Your task to perform on an android device: Show me recent news Image 0: 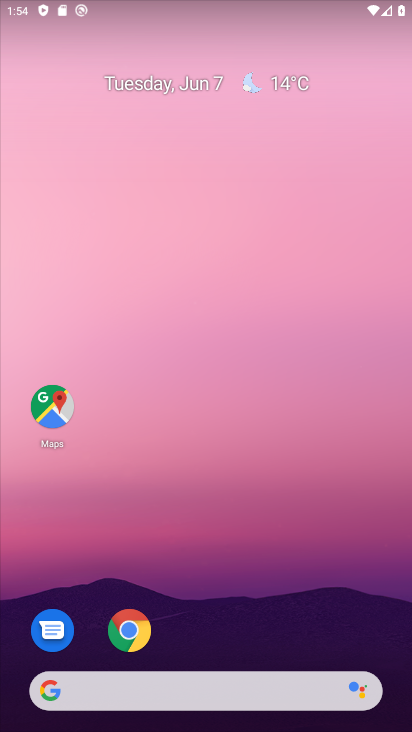
Step 0: drag from (2, 291) to (383, 284)
Your task to perform on an android device: Show me recent news Image 1: 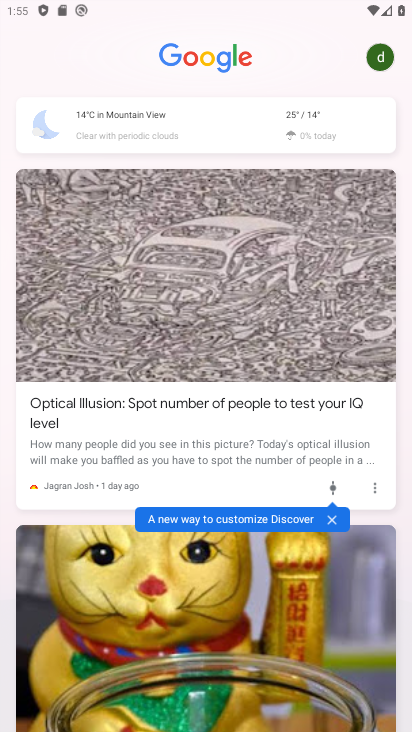
Step 1: task complete